Your task to perform on an android device: change timer sound Image 0: 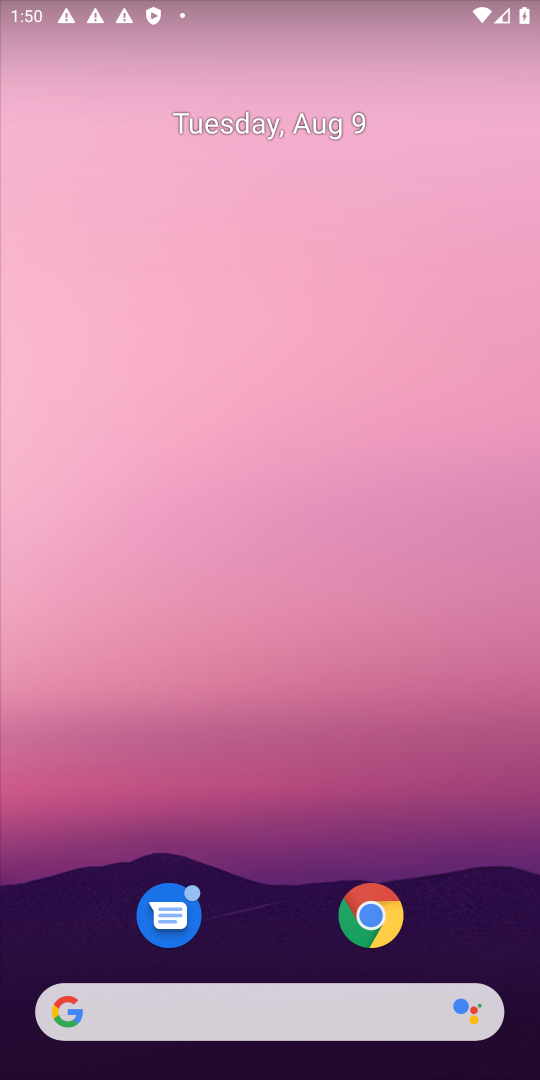
Step 0: press back button
Your task to perform on an android device: change timer sound Image 1: 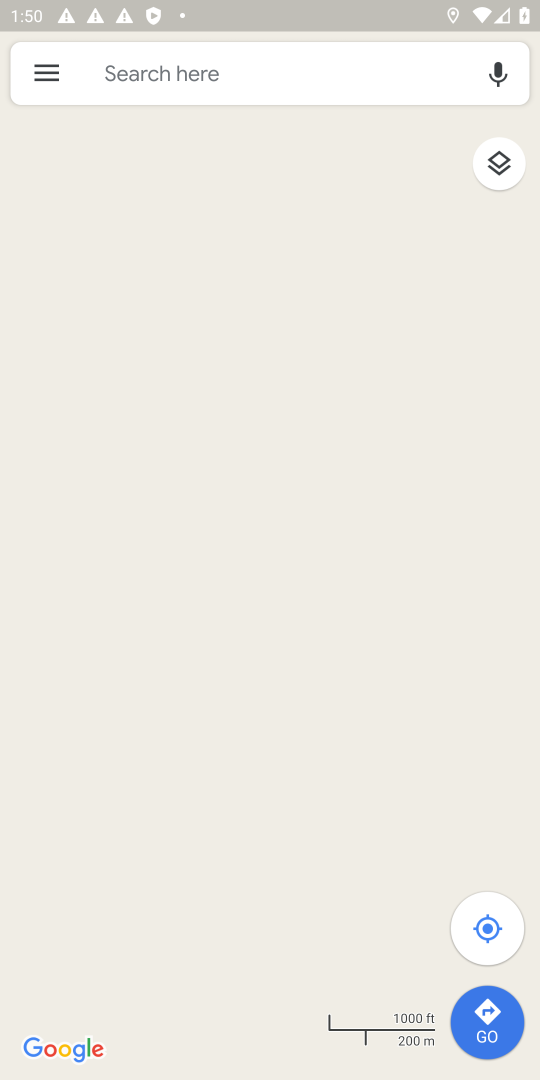
Step 1: press back button
Your task to perform on an android device: change timer sound Image 2: 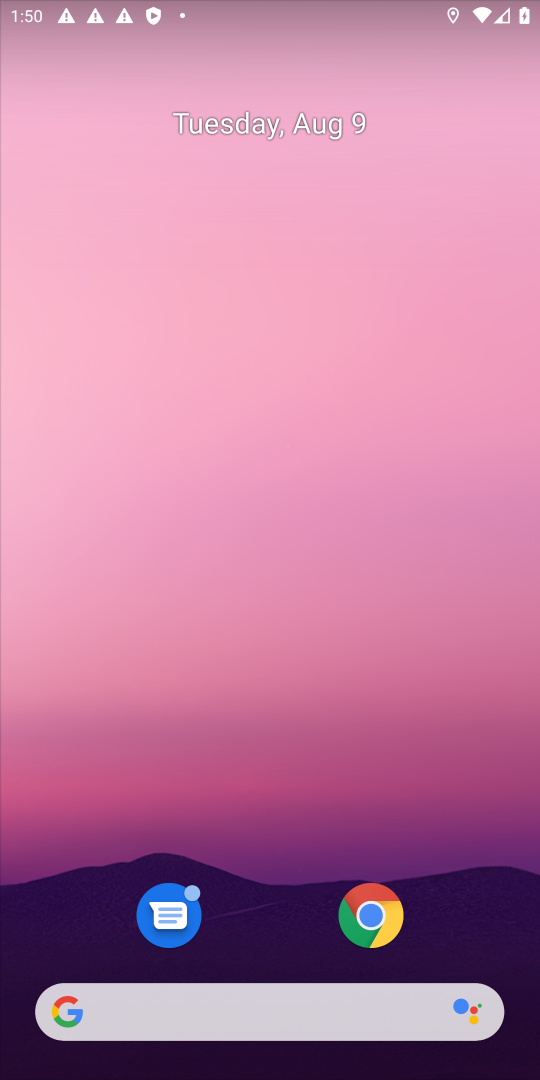
Step 2: press back button
Your task to perform on an android device: change timer sound Image 3: 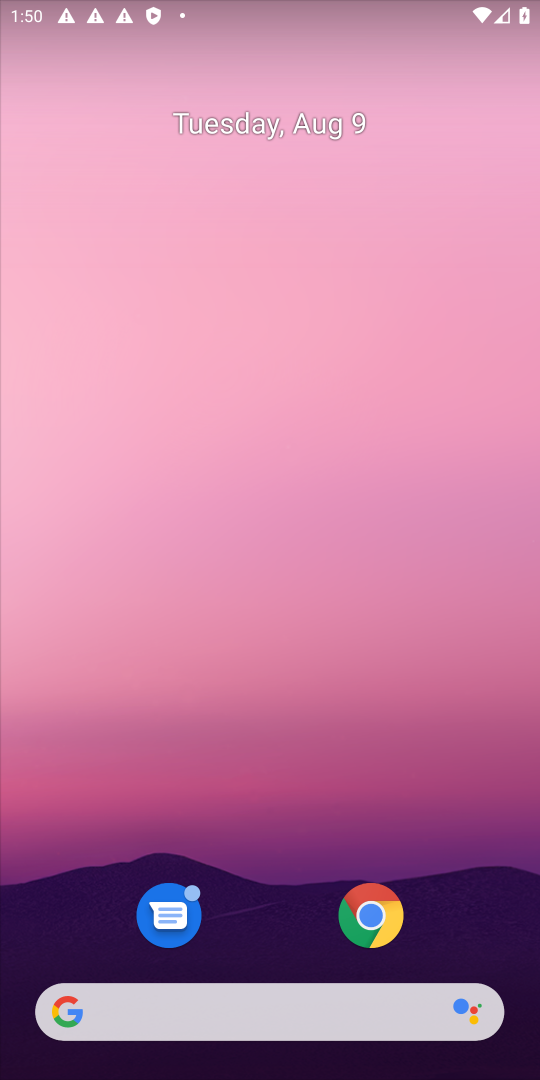
Step 3: drag from (253, 928) to (198, 381)
Your task to perform on an android device: change timer sound Image 4: 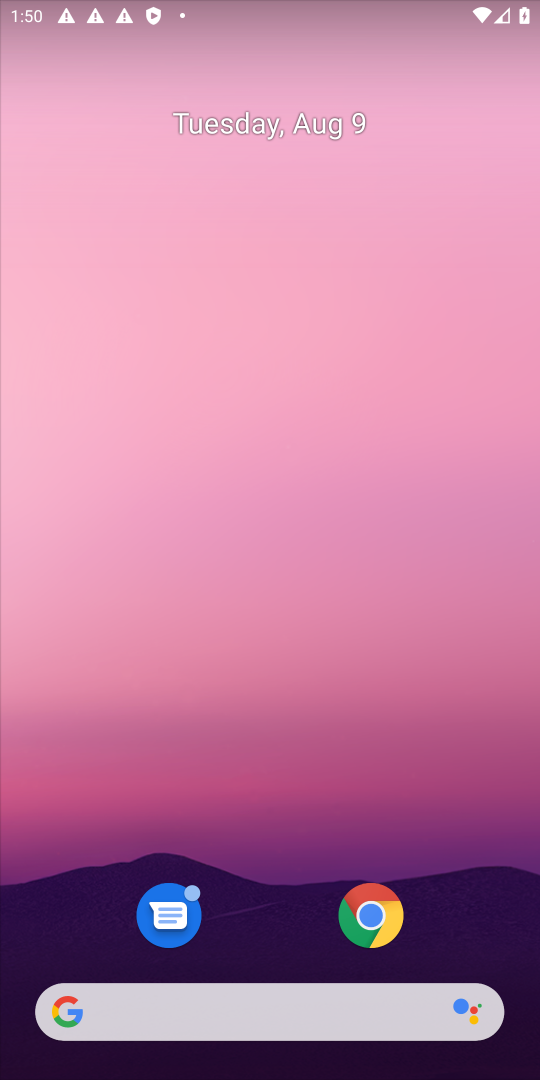
Step 4: drag from (249, 346) to (245, 127)
Your task to perform on an android device: change timer sound Image 5: 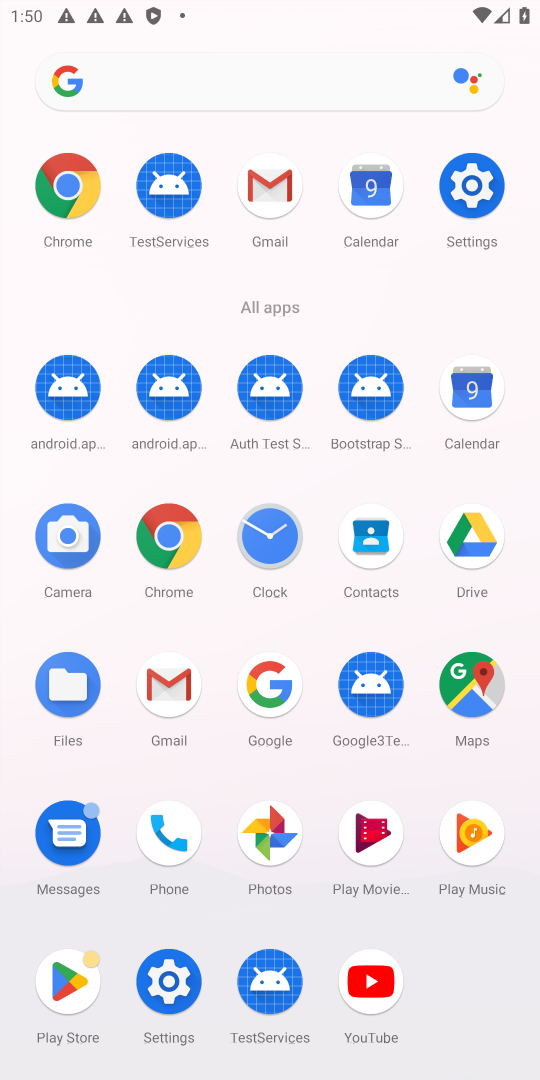
Step 5: click (474, 173)
Your task to perform on an android device: change timer sound Image 6: 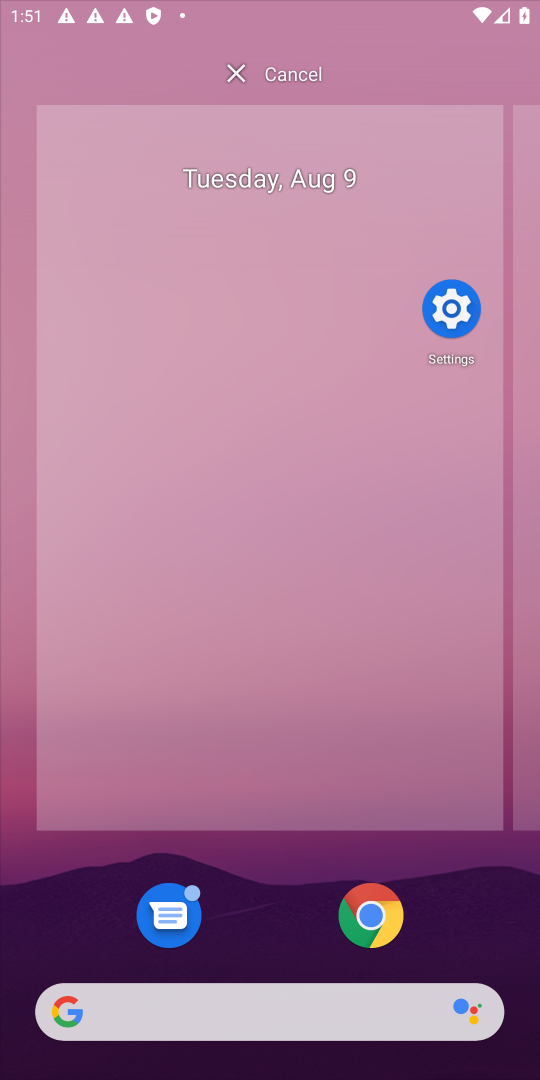
Step 6: press back button
Your task to perform on an android device: change timer sound Image 7: 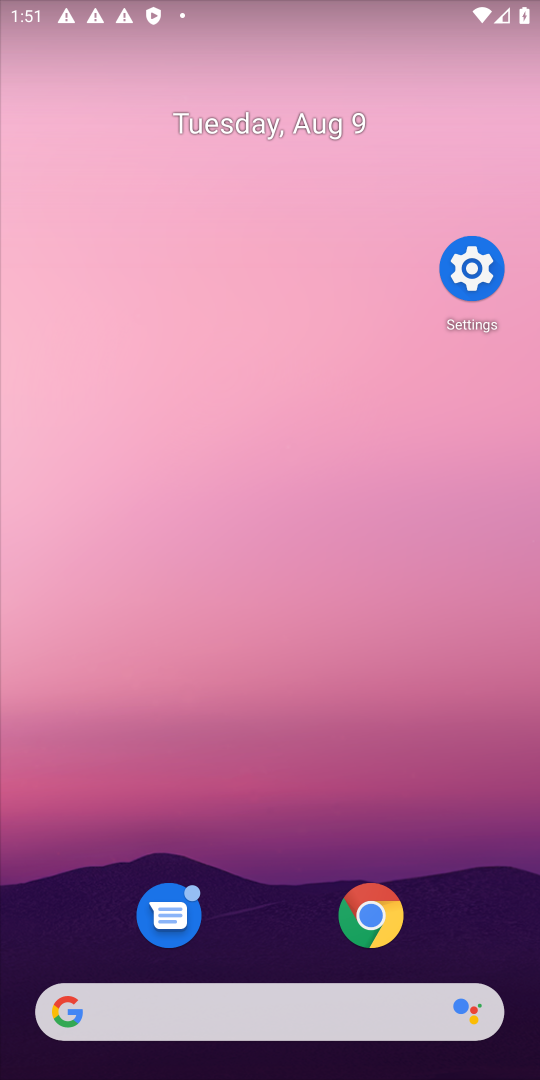
Step 7: press back button
Your task to perform on an android device: change timer sound Image 8: 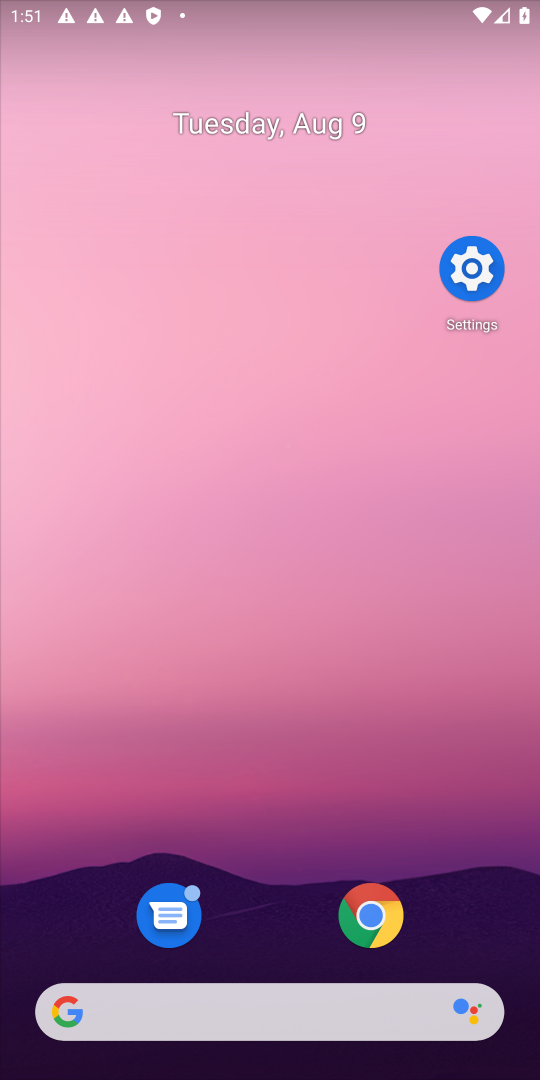
Step 8: drag from (349, 1033) to (231, 169)
Your task to perform on an android device: change timer sound Image 9: 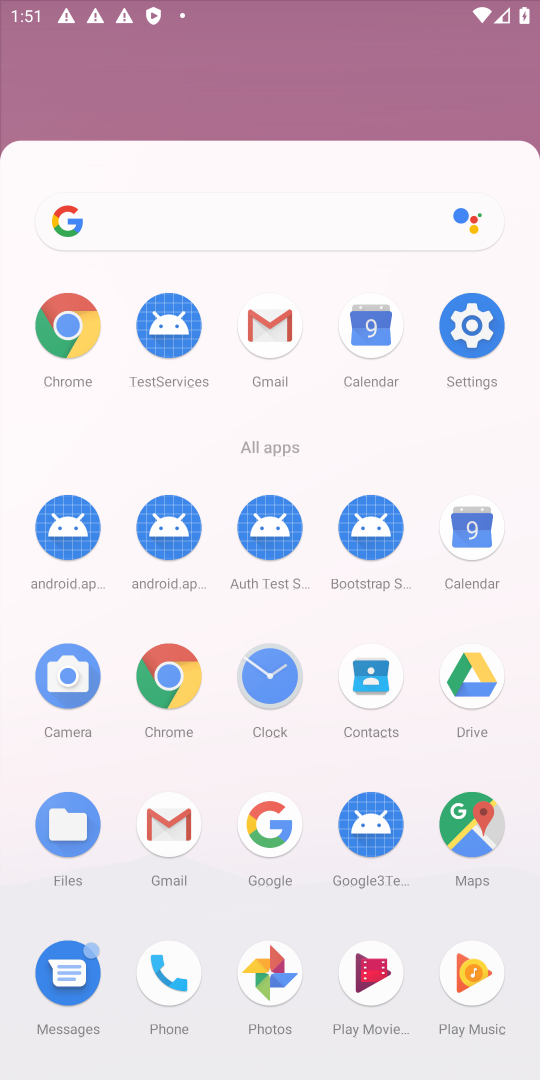
Step 9: drag from (258, 676) to (237, 98)
Your task to perform on an android device: change timer sound Image 10: 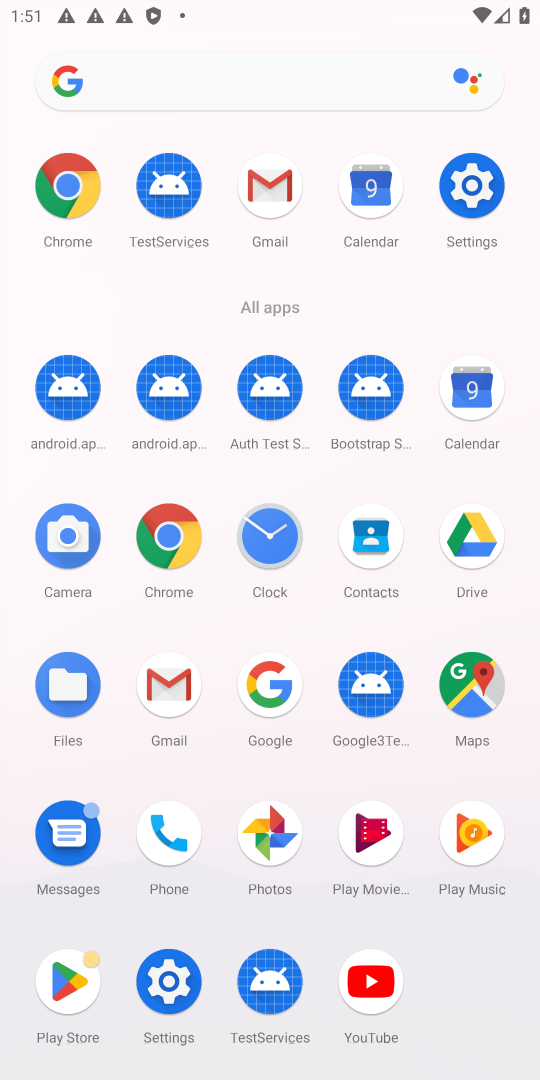
Step 10: click (259, 539)
Your task to perform on an android device: change timer sound Image 11: 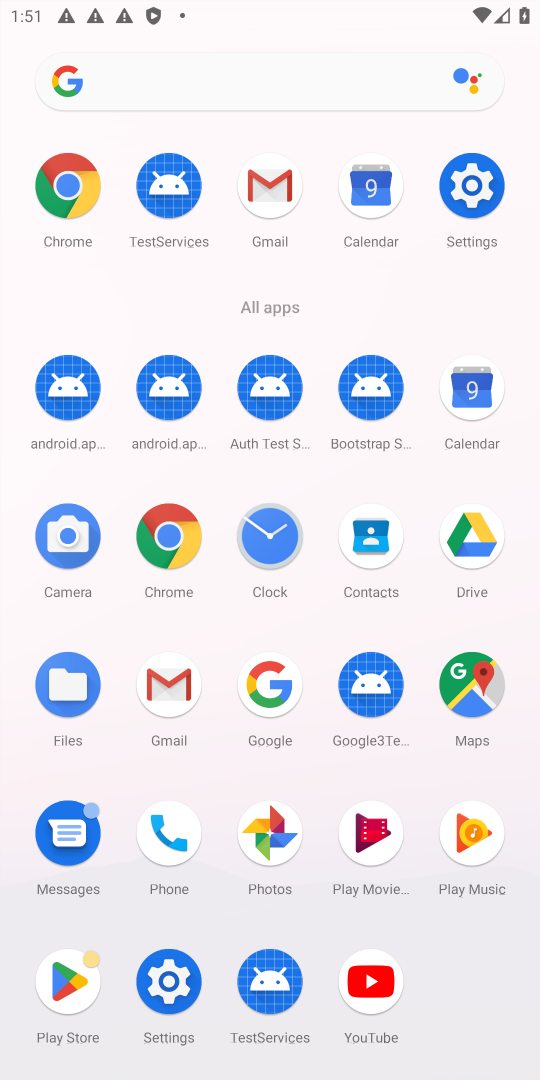
Step 11: click (259, 539)
Your task to perform on an android device: change timer sound Image 12: 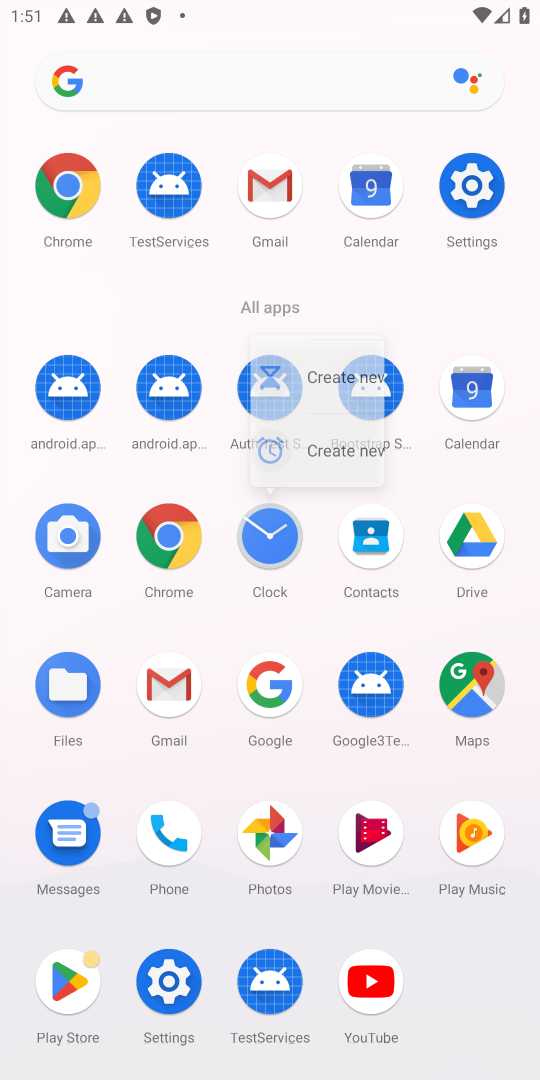
Step 12: click (261, 542)
Your task to perform on an android device: change timer sound Image 13: 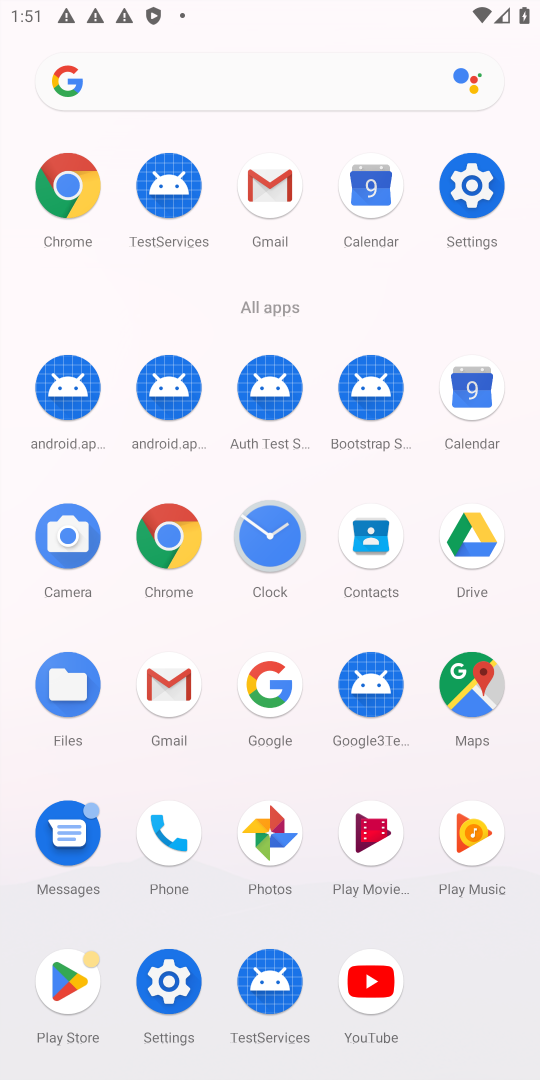
Step 13: click (264, 543)
Your task to perform on an android device: change timer sound Image 14: 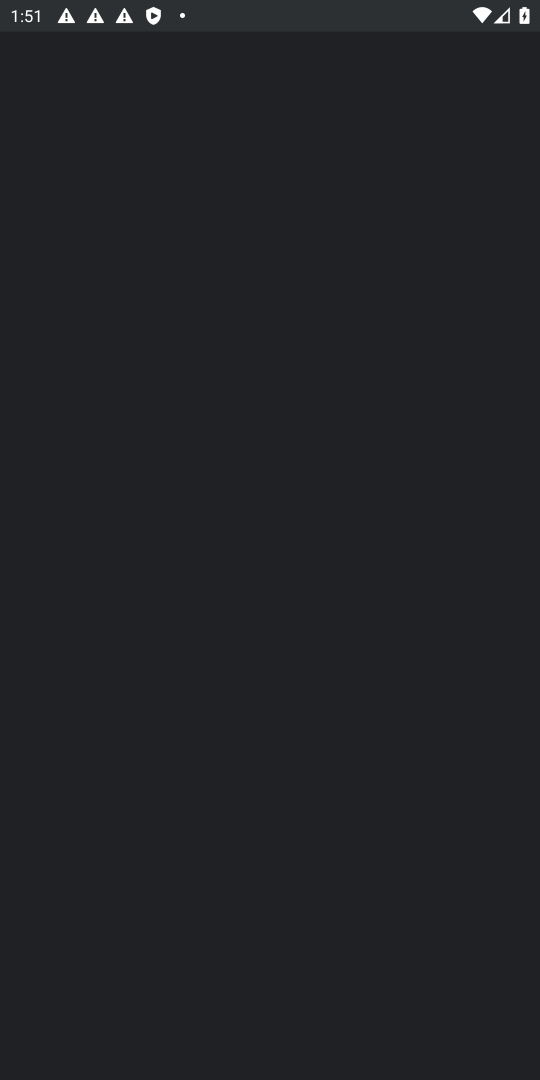
Step 14: click (269, 543)
Your task to perform on an android device: change timer sound Image 15: 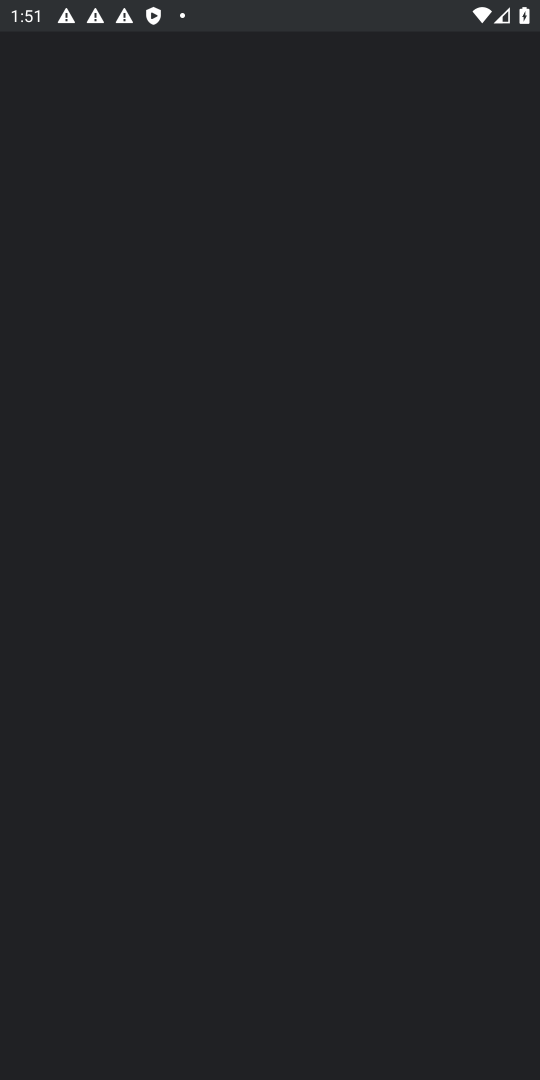
Step 15: click (273, 545)
Your task to perform on an android device: change timer sound Image 16: 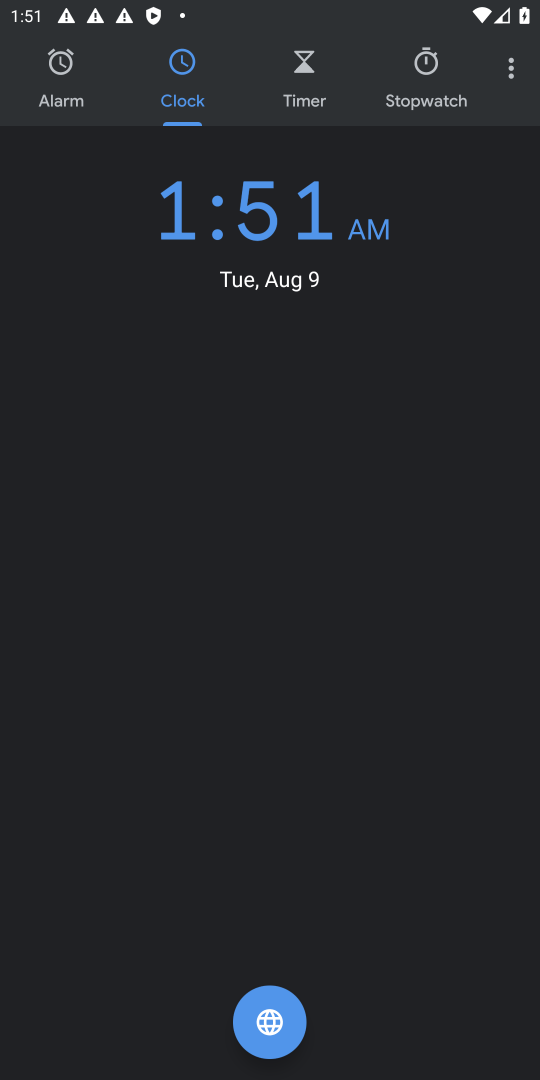
Step 16: click (508, 67)
Your task to perform on an android device: change timer sound Image 17: 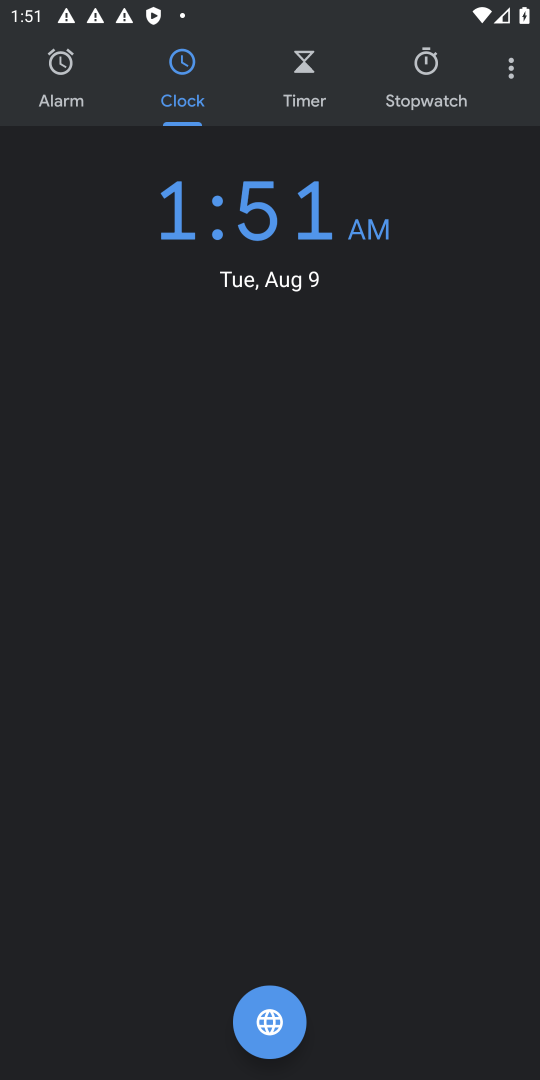
Step 17: click (523, 86)
Your task to perform on an android device: change timer sound Image 18: 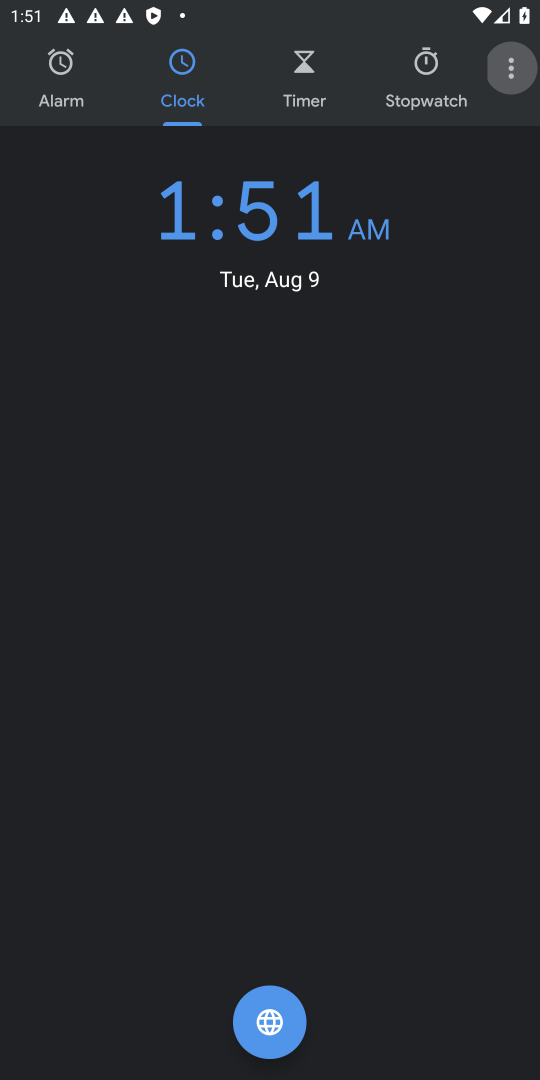
Step 18: click (514, 78)
Your task to perform on an android device: change timer sound Image 19: 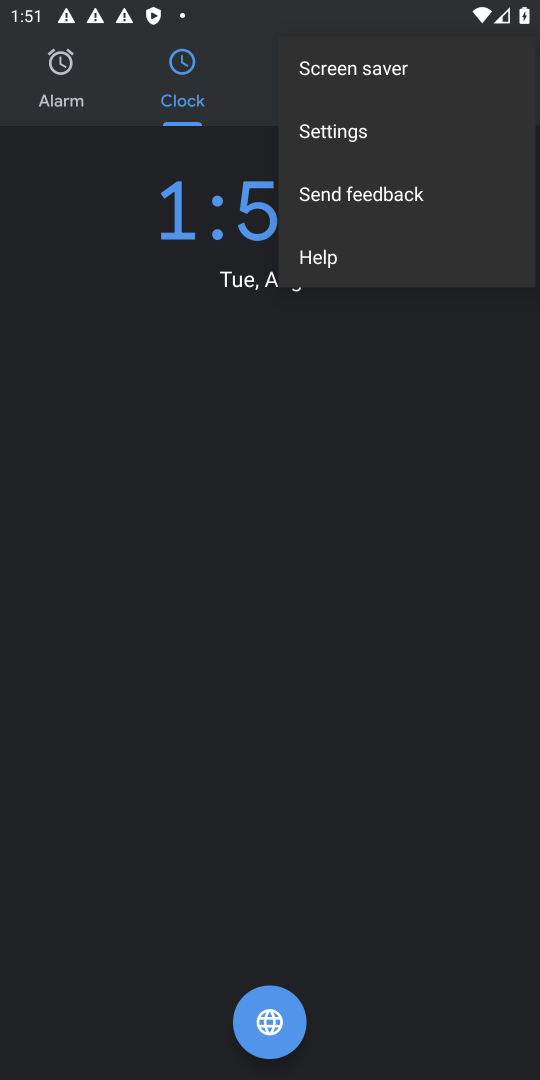
Step 19: click (510, 83)
Your task to perform on an android device: change timer sound Image 20: 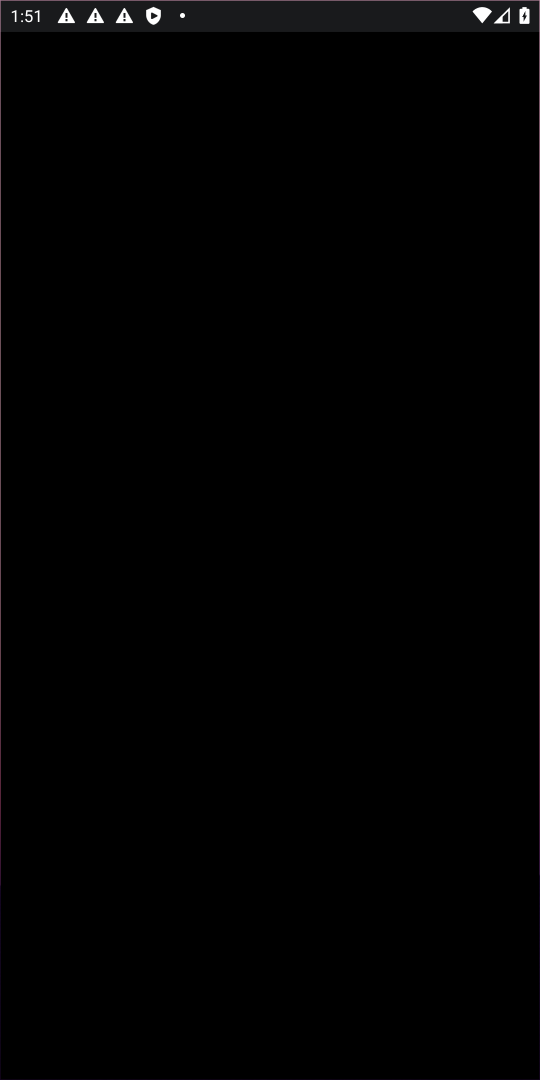
Step 20: click (332, 142)
Your task to perform on an android device: change timer sound Image 21: 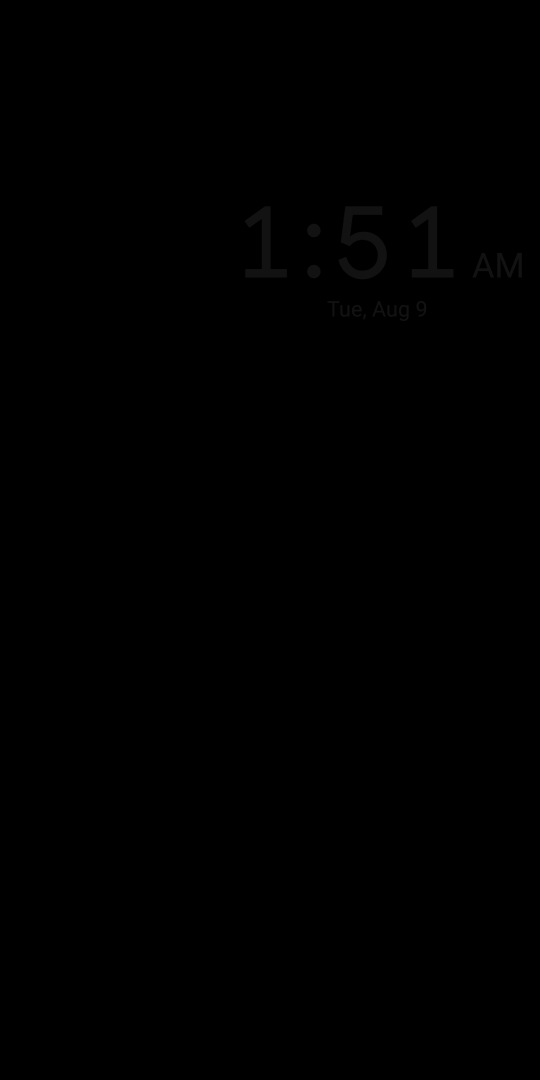
Step 21: click (333, 136)
Your task to perform on an android device: change timer sound Image 22: 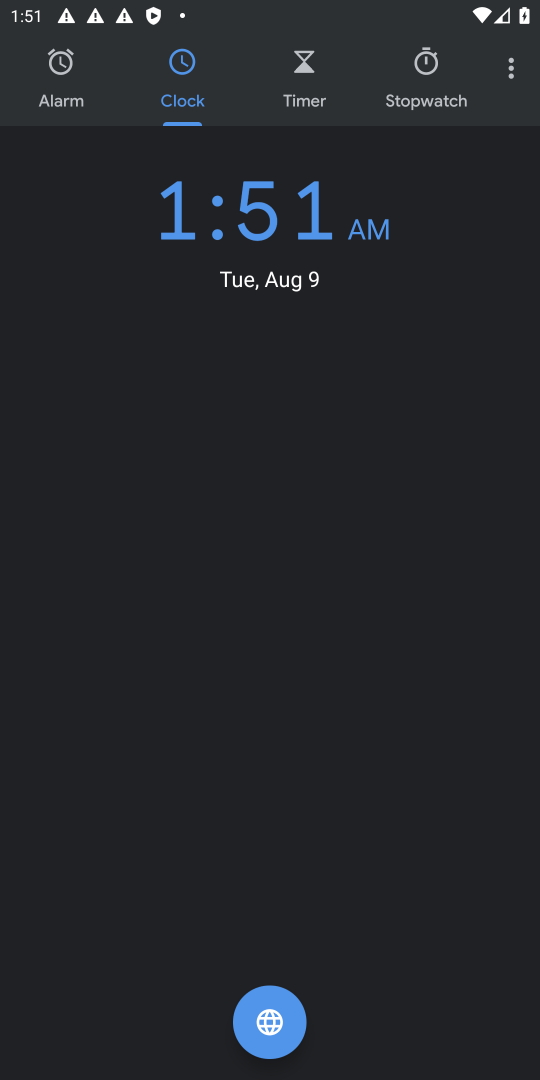
Step 22: click (515, 81)
Your task to perform on an android device: change timer sound Image 23: 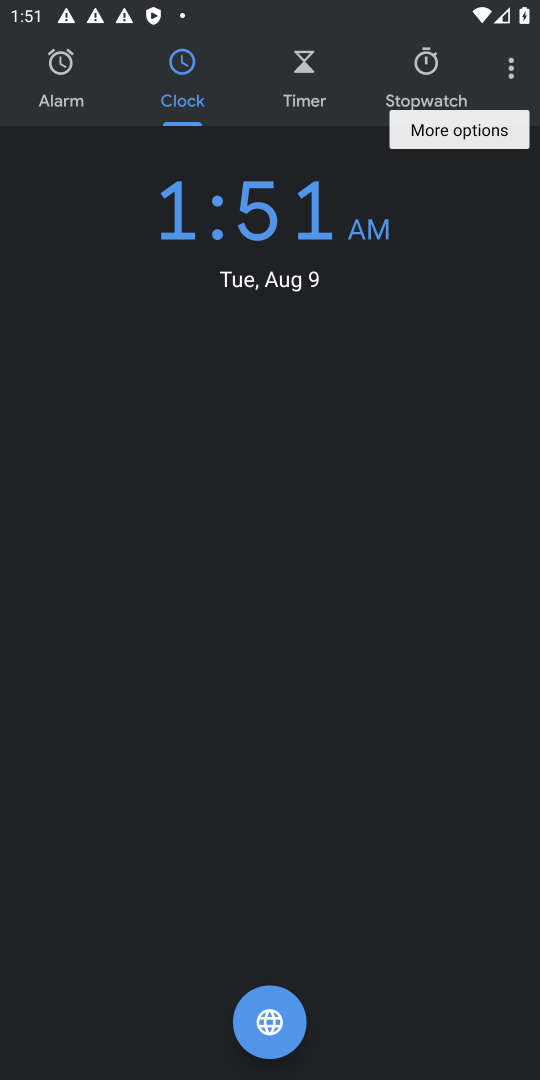
Step 23: click (508, 79)
Your task to perform on an android device: change timer sound Image 24: 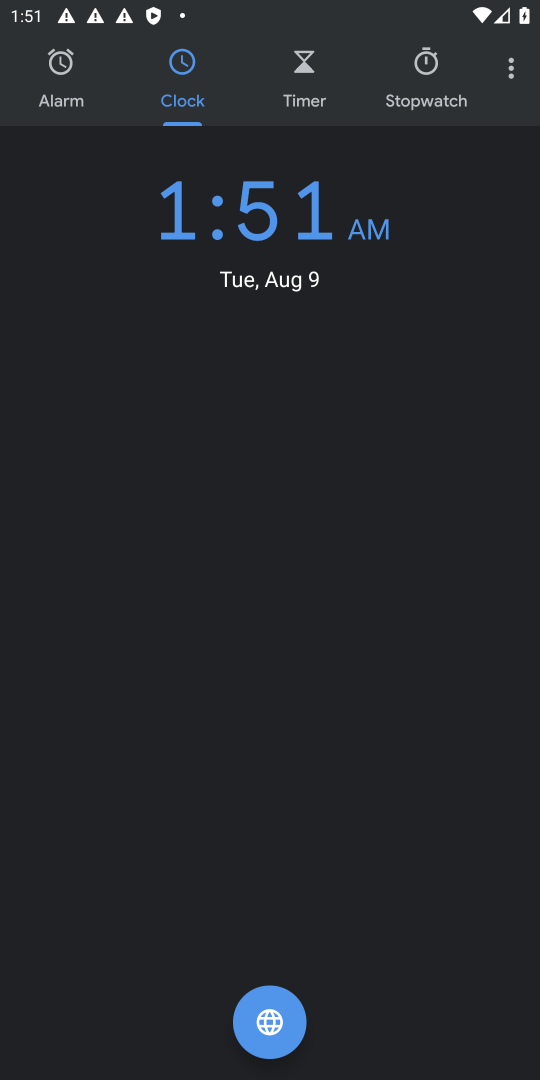
Step 24: click (519, 73)
Your task to perform on an android device: change timer sound Image 25: 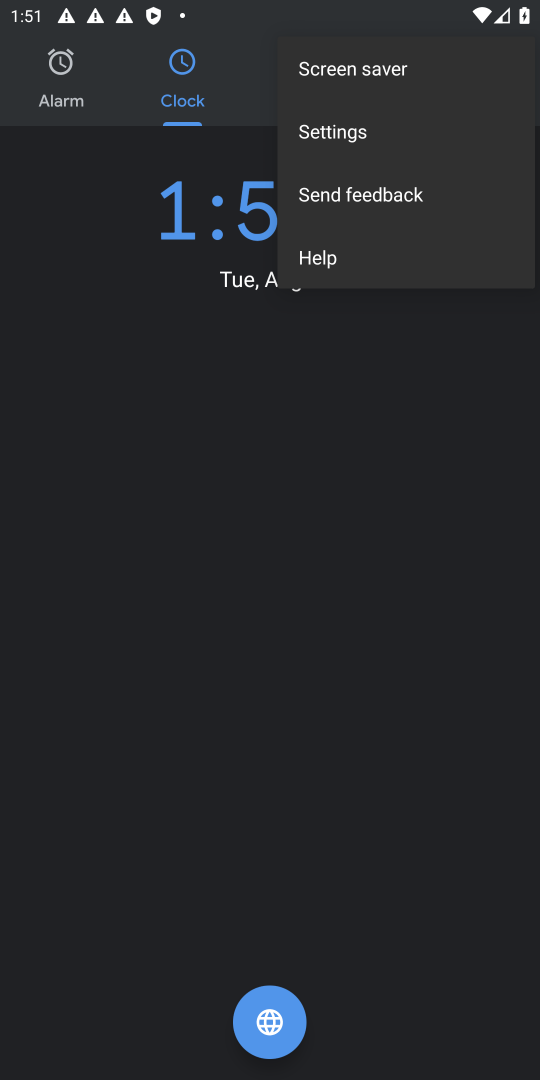
Step 25: click (331, 128)
Your task to perform on an android device: change timer sound Image 26: 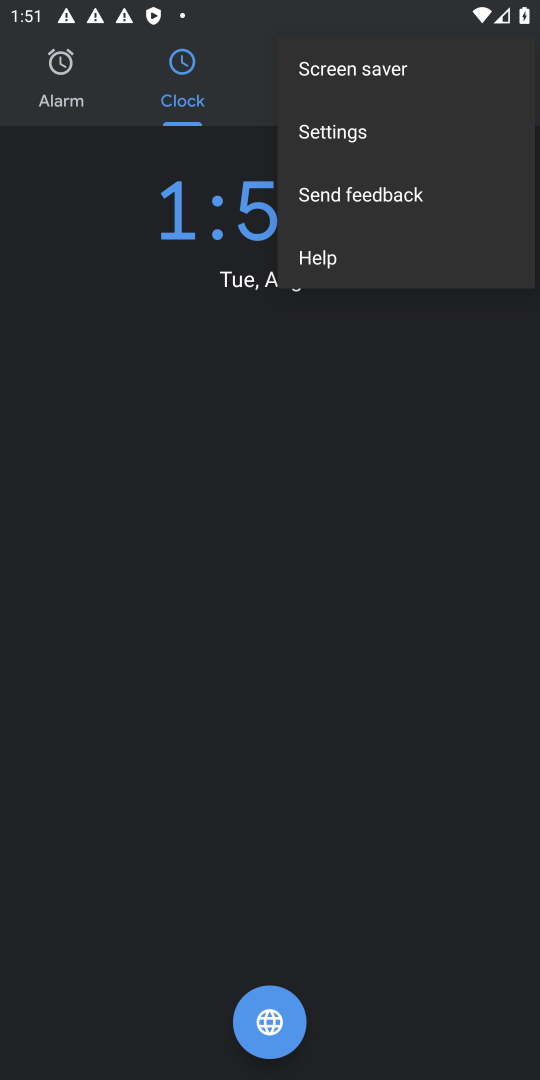
Step 26: click (331, 128)
Your task to perform on an android device: change timer sound Image 27: 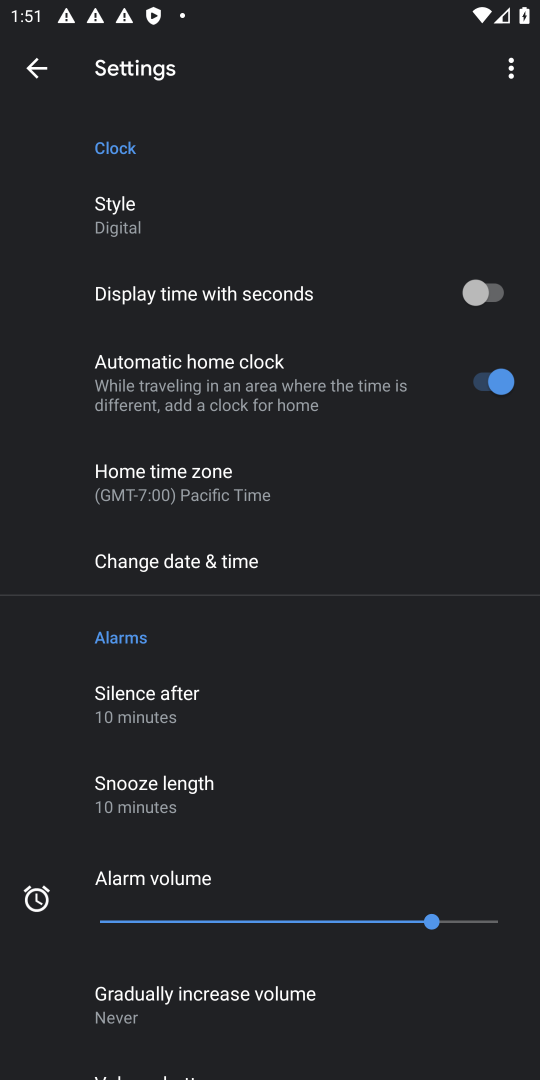
Step 27: drag from (244, 875) to (153, 401)
Your task to perform on an android device: change timer sound Image 28: 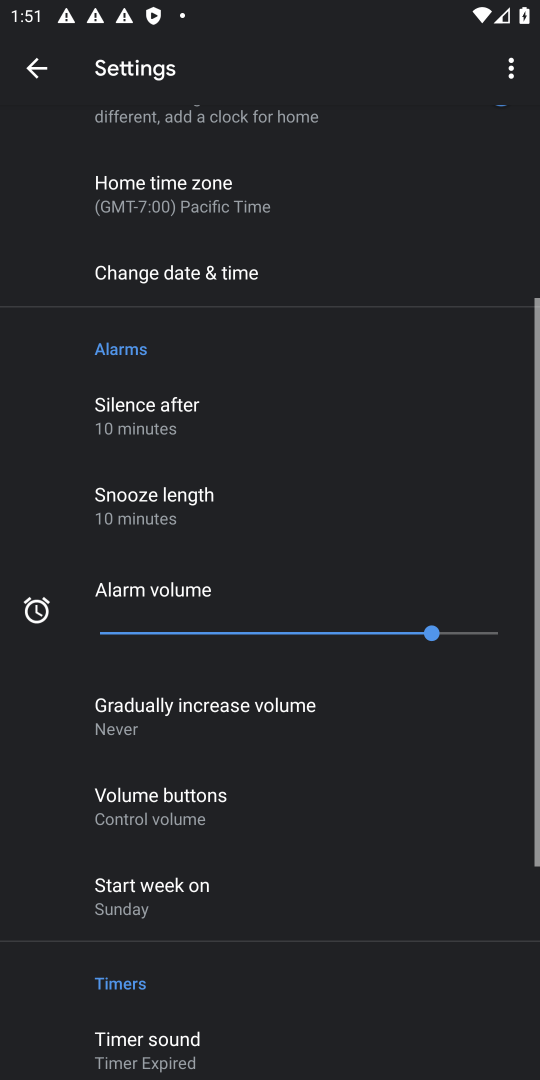
Step 28: drag from (224, 836) to (198, 391)
Your task to perform on an android device: change timer sound Image 29: 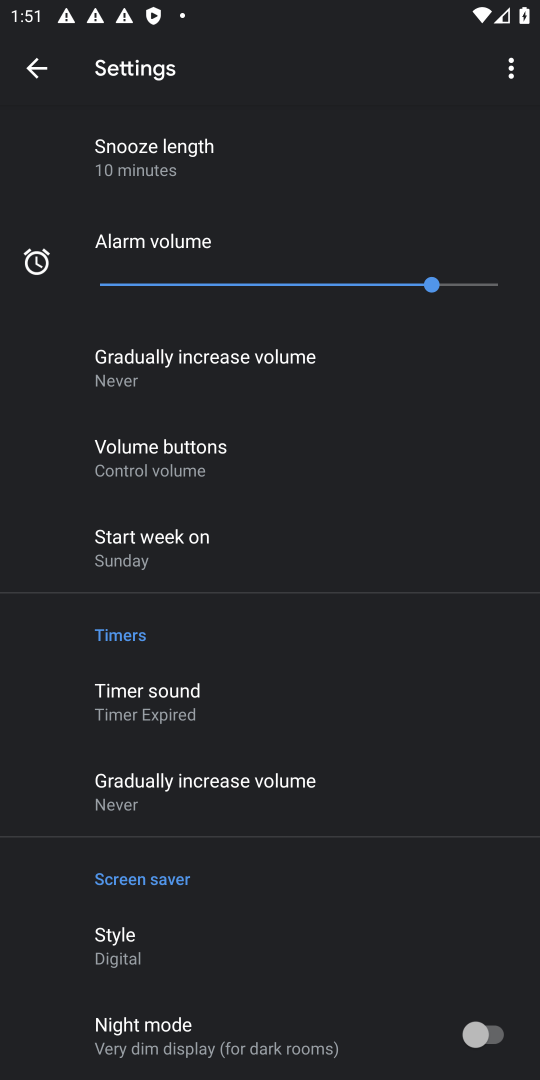
Step 29: click (164, 694)
Your task to perform on an android device: change timer sound Image 30: 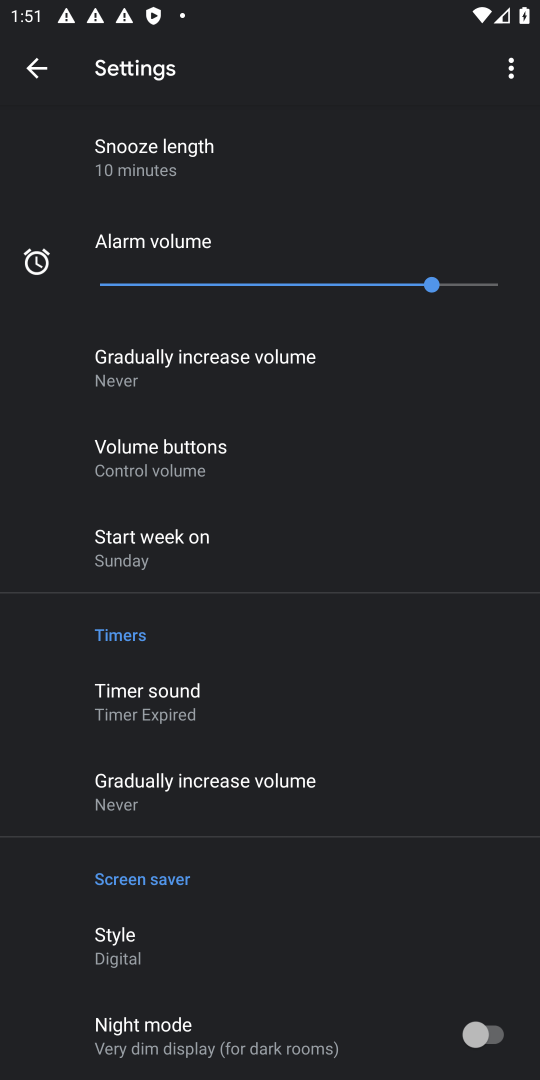
Step 30: click (164, 698)
Your task to perform on an android device: change timer sound Image 31: 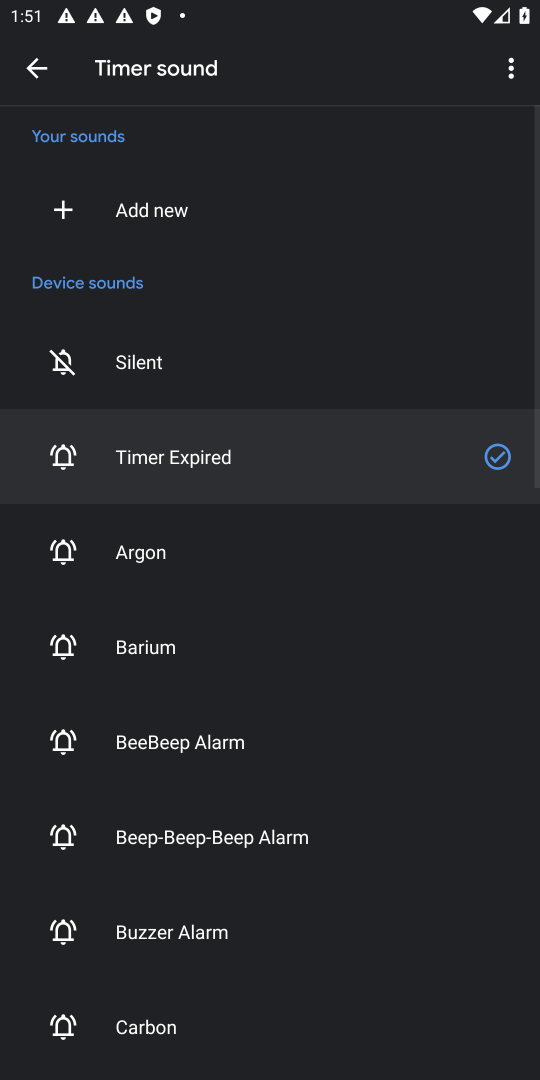
Step 31: click (84, 744)
Your task to perform on an android device: change timer sound Image 32: 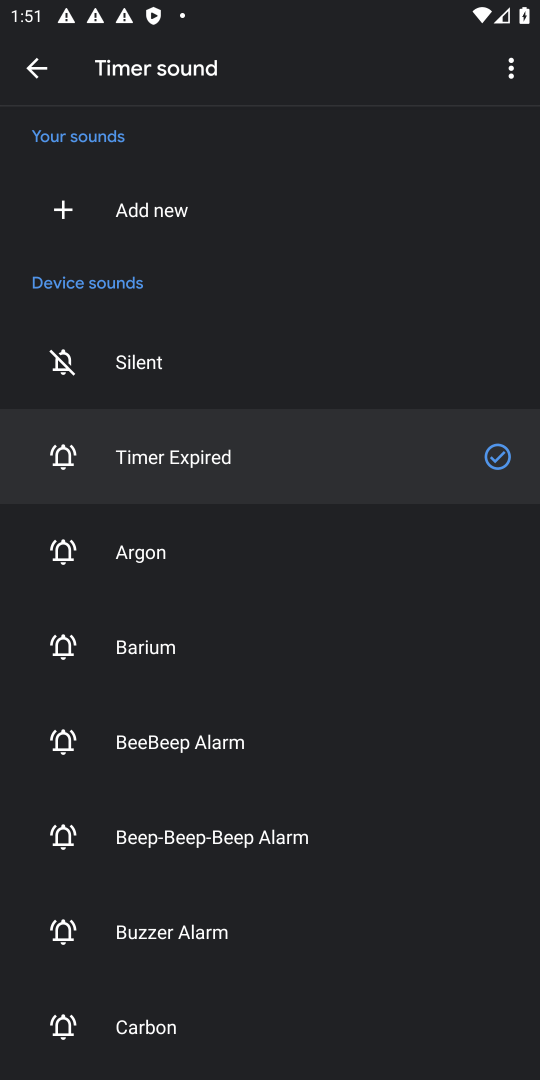
Step 32: click (84, 744)
Your task to perform on an android device: change timer sound Image 33: 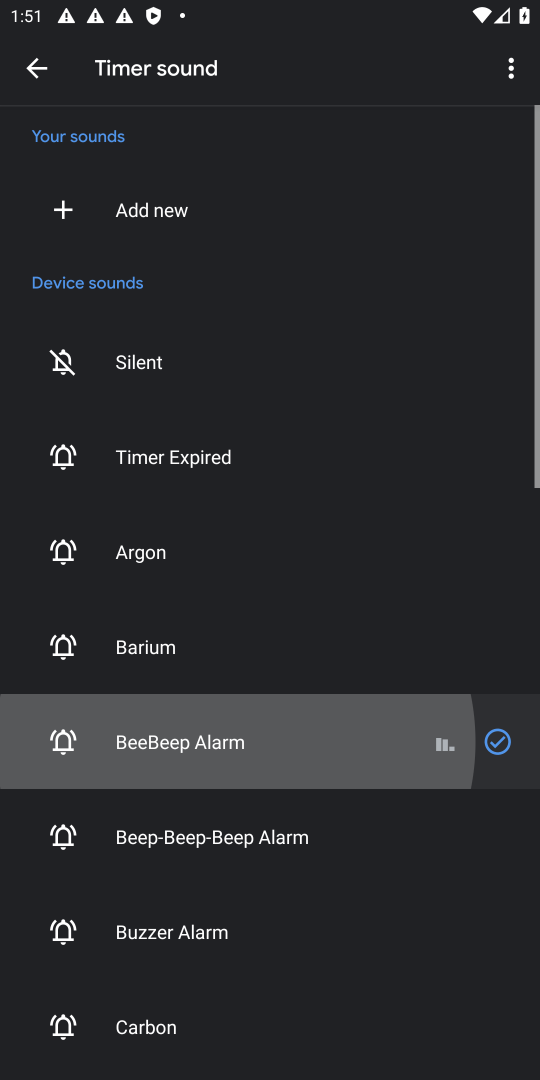
Step 33: click (83, 744)
Your task to perform on an android device: change timer sound Image 34: 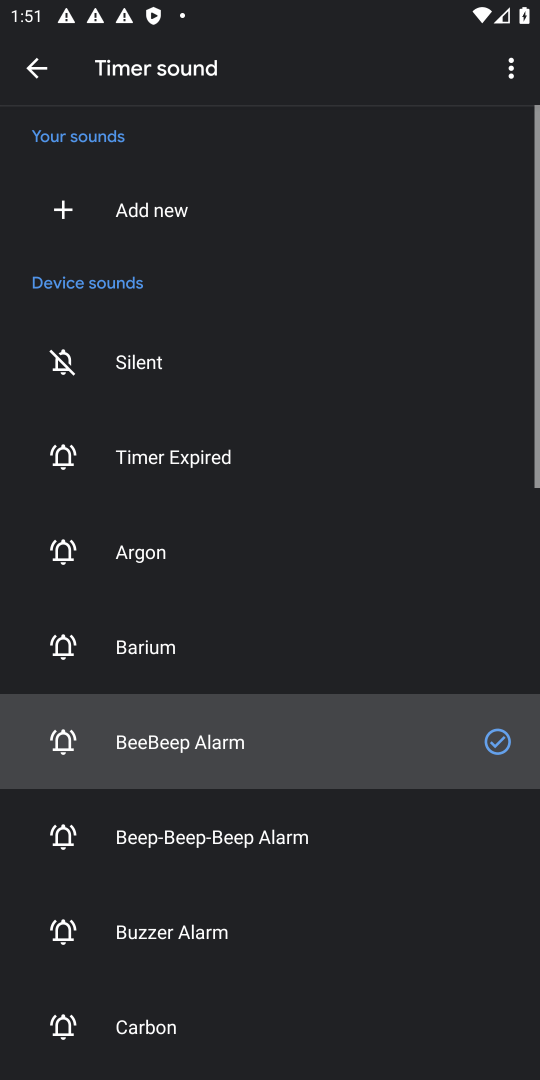
Step 34: click (83, 744)
Your task to perform on an android device: change timer sound Image 35: 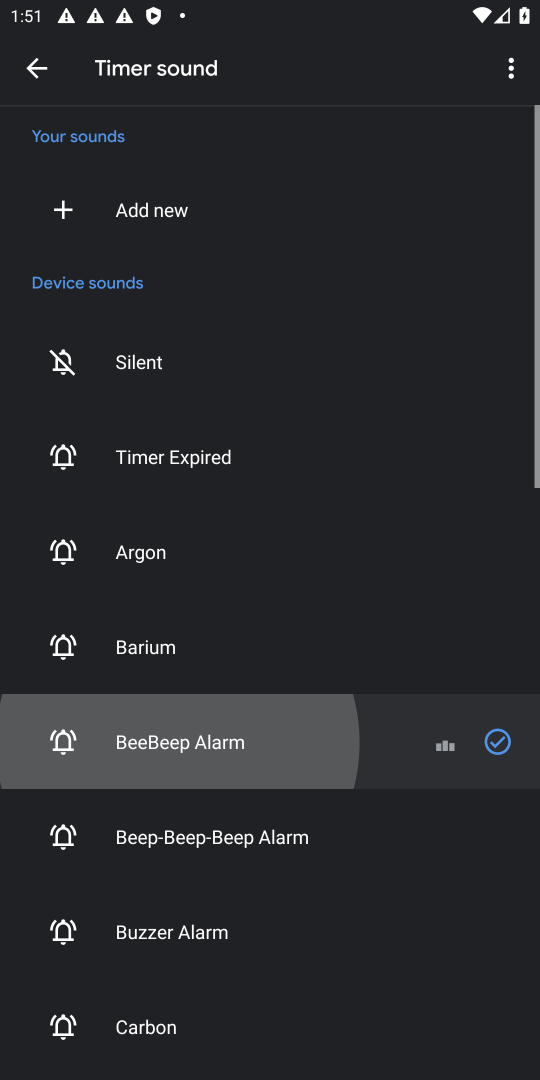
Step 35: click (81, 743)
Your task to perform on an android device: change timer sound Image 36: 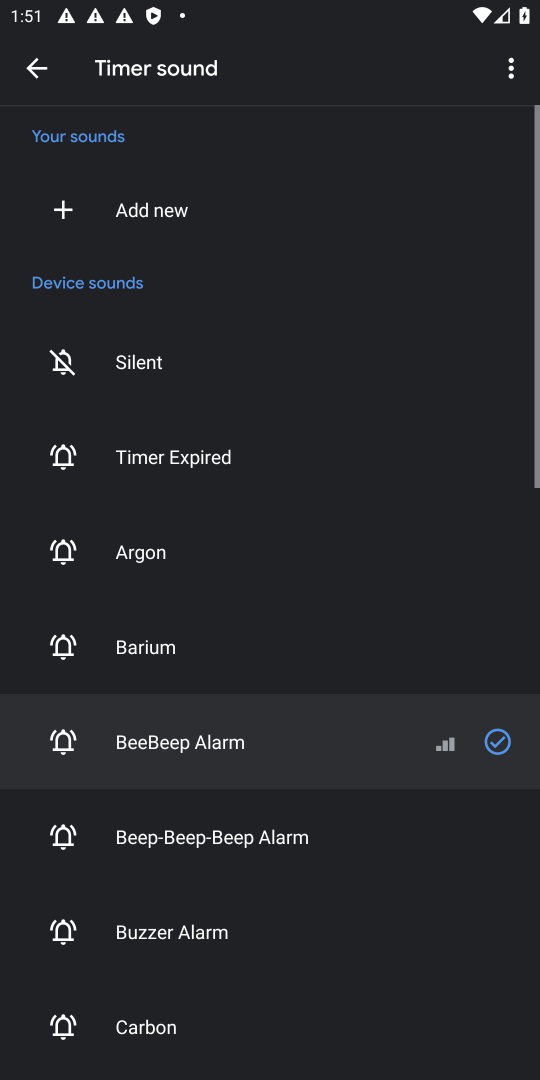
Step 36: task complete